Your task to perform on an android device: Open Youtube and go to the subscriptions tab Image 0: 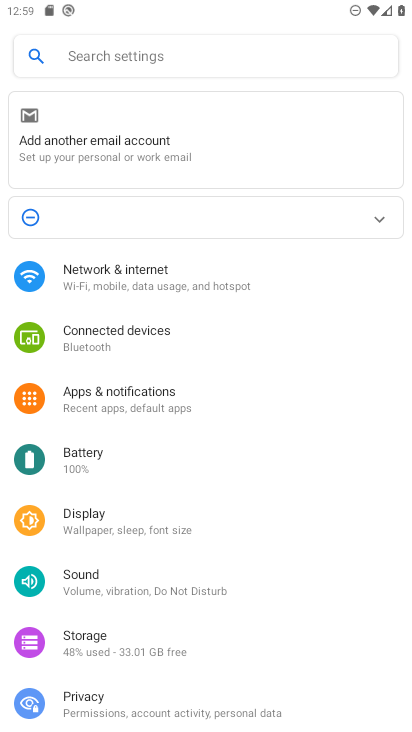
Step 0: press home button
Your task to perform on an android device: Open Youtube and go to the subscriptions tab Image 1: 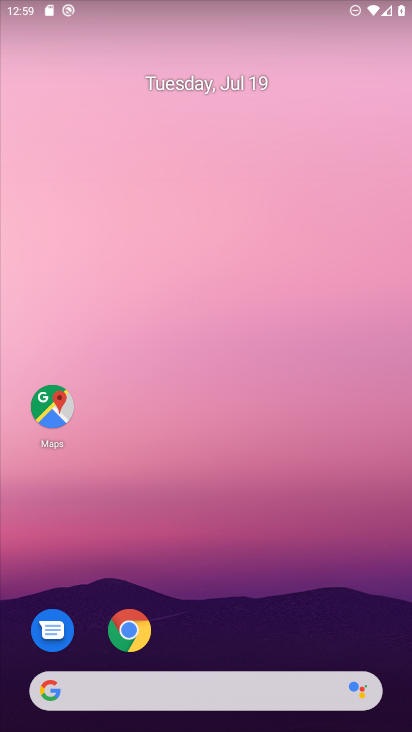
Step 1: drag from (154, 683) to (279, 129)
Your task to perform on an android device: Open Youtube and go to the subscriptions tab Image 2: 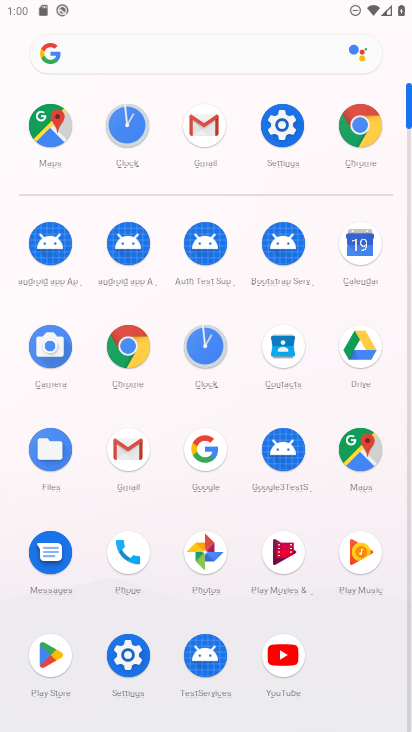
Step 2: click (281, 653)
Your task to perform on an android device: Open Youtube and go to the subscriptions tab Image 3: 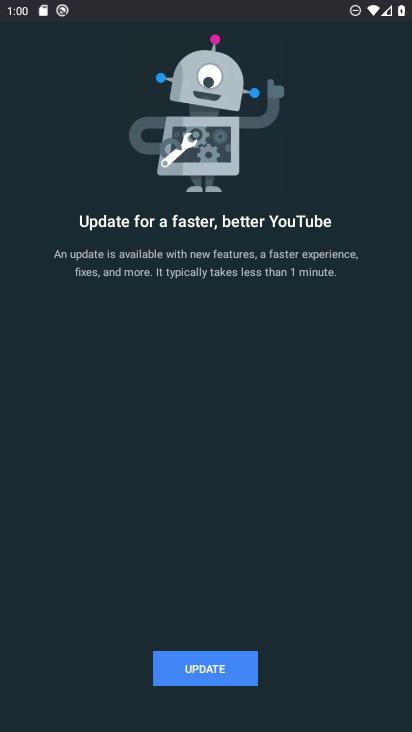
Step 3: click (197, 670)
Your task to perform on an android device: Open Youtube and go to the subscriptions tab Image 4: 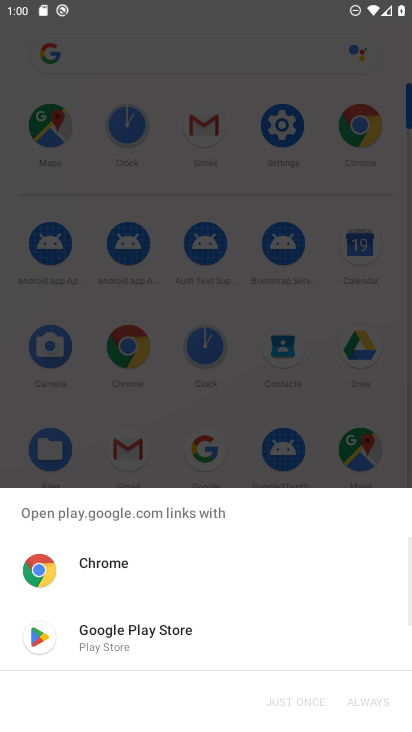
Step 4: click (130, 629)
Your task to perform on an android device: Open Youtube and go to the subscriptions tab Image 5: 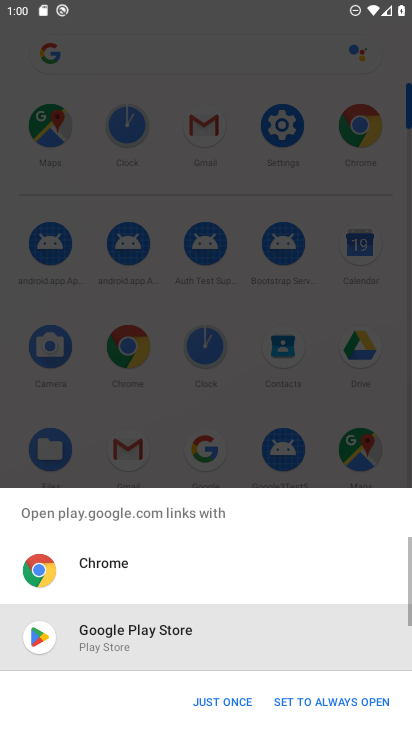
Step 5: click (201, 701)
Your task to perform on an android device: Open Youtube and go to the subscriptions tab Image 6: 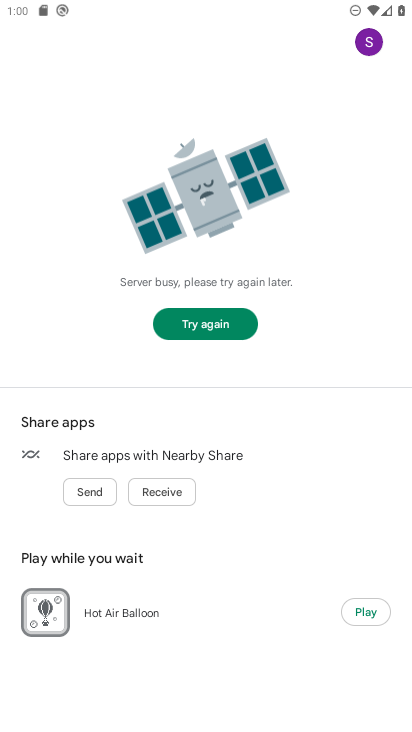
Step 6: click (189, 318)
Your task to perform on an android device: Open Youtube and go to the subscriptions tab Image 7: 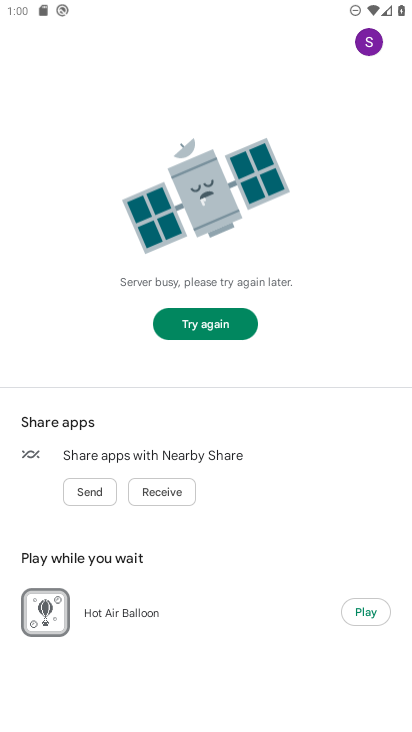
Step 7: click (200, 329)
Your task to perform on an android device: Open Youtube and go to the subscriptions tab Image 8: 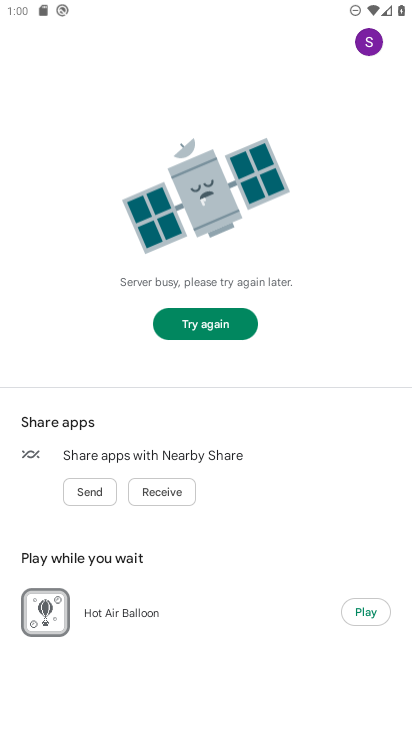
Step 8: task complete